Your task to perform on an android device: all mails in gmail Image 0: 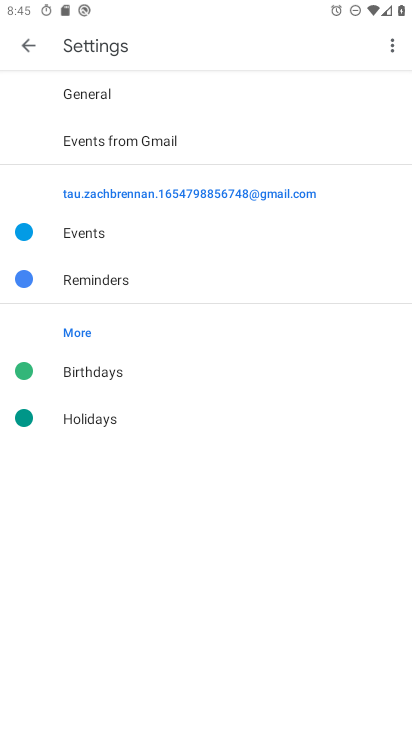
Step 0: press home button
Your task to perform on an android device: all mails in gmail Image 1: 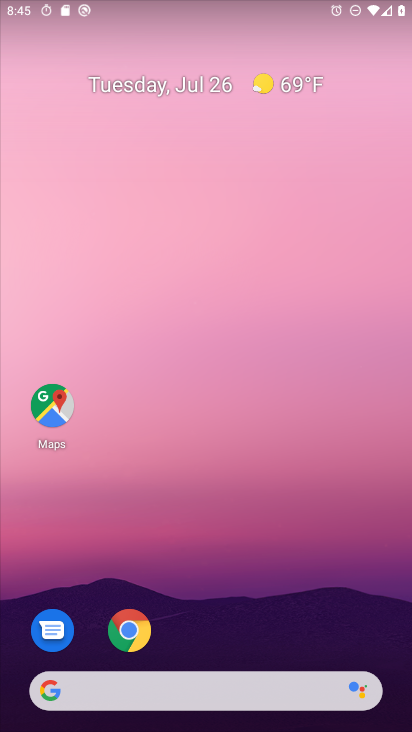
Step 1: drag from (249, 542) to (250, 105)
Your task to perform on an android device: all mails in gmail Image 2: 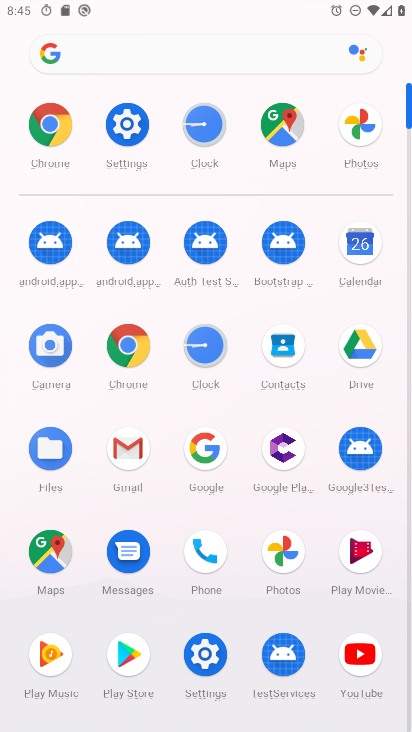
Step 2: click (123, 451)
Your task to perform on an android device: all mails in gmail Image 3: 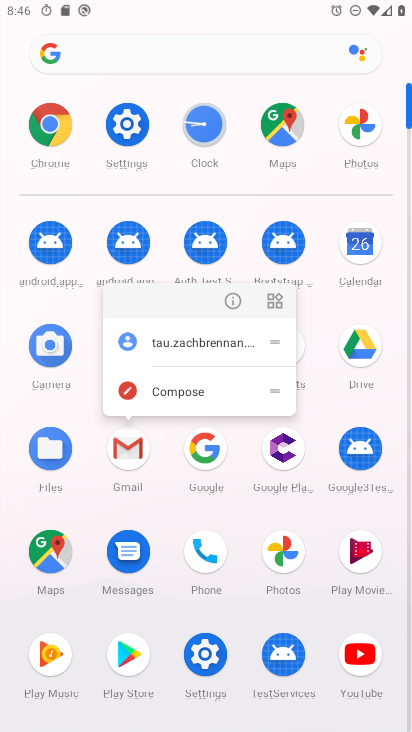
Step 3: click (138, 456)
Your task to perform on an android device: all mails in gmail Image 4: 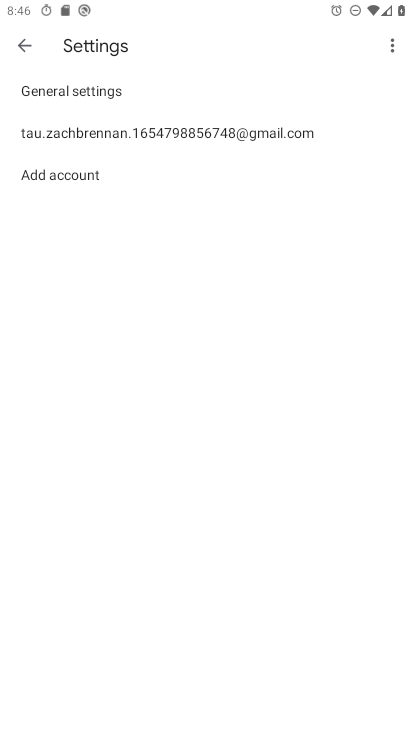
Step 4: press back button
Your task to perform on an android device: all mails in gmail Image 5: 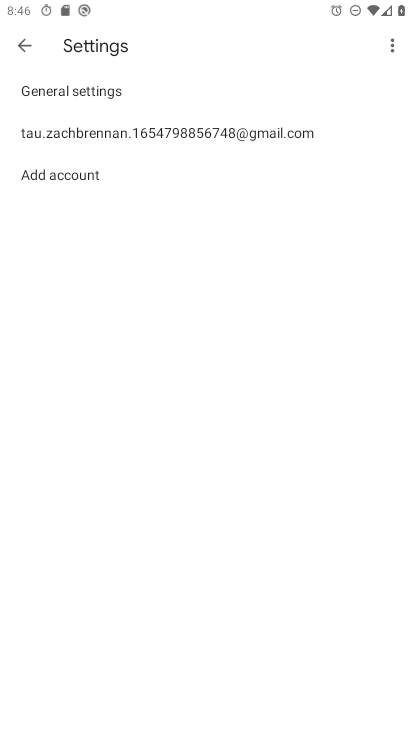
Step 5: press back button
Your task to perform on an android device: all mails in gmail Image 6: 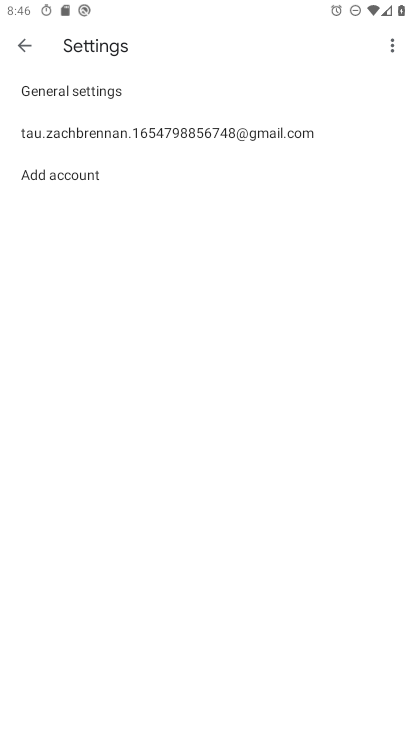
Step 6: press back button
Your task to perform on an android device: all mails in gmail Image 7: 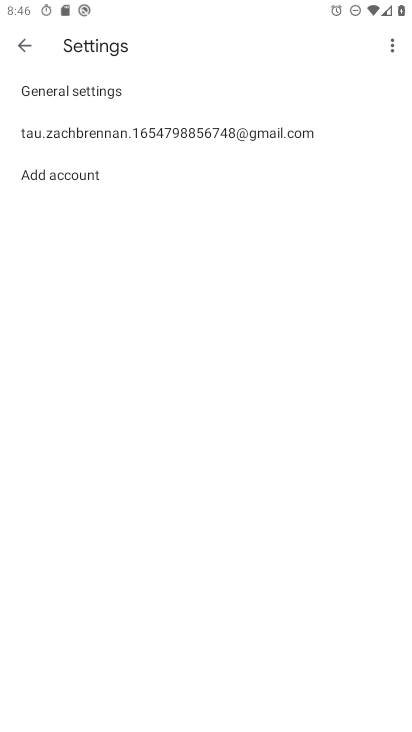
Step 7: click (22, 37)
Your task to perform on an android device: all mails in gmail Image 8: 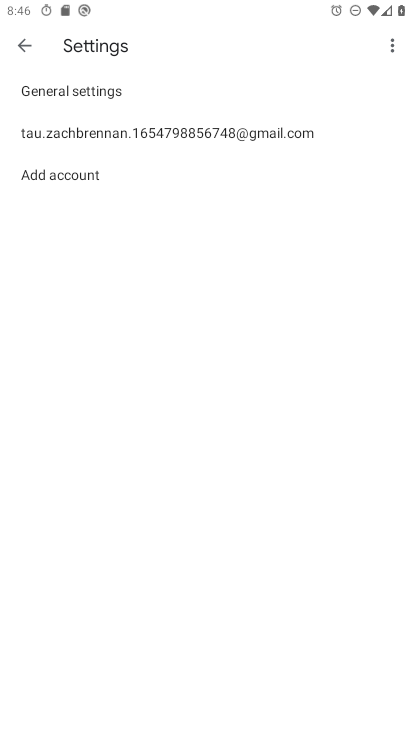
Step 8: click (26, 42)
Your task to perform on an android device: all mails in gmail Image 9: 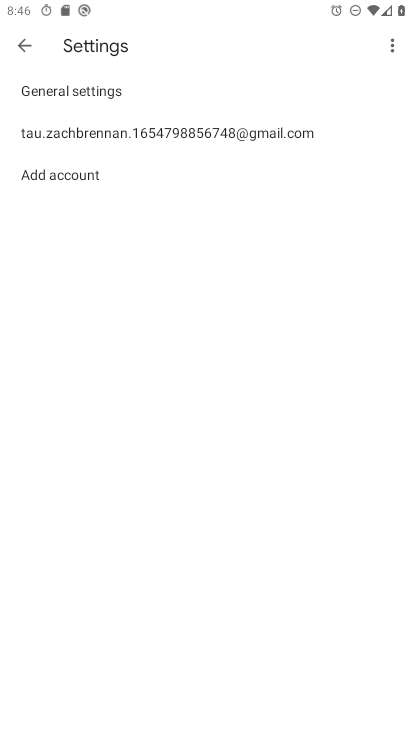
Step 9: press home button
Your task to perform on an android device: all mails in gmail Image 10: 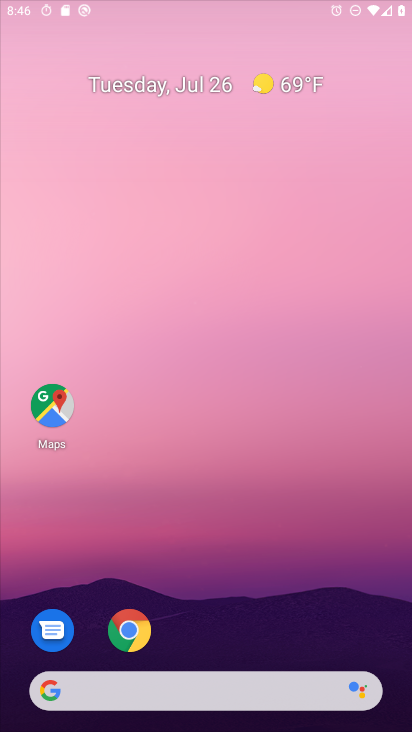
Step 10: drag from (241, 489) to (306, 68)
Your task to perform on an android device: all mails in gmail Image 11: 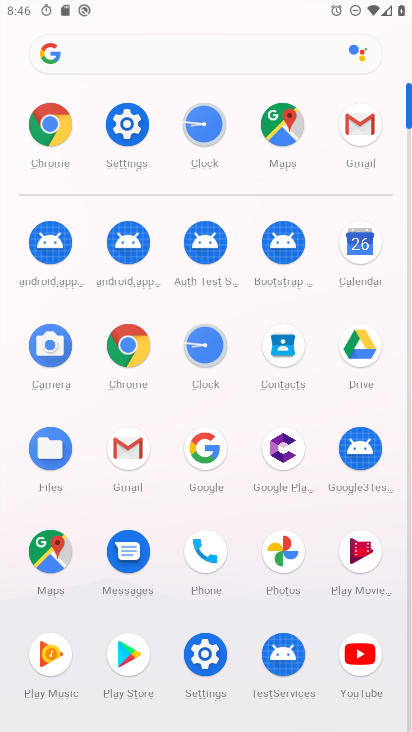
Step 11: click (125, 457)
Your task to perform on an android device: all mails in gmail Image 12: 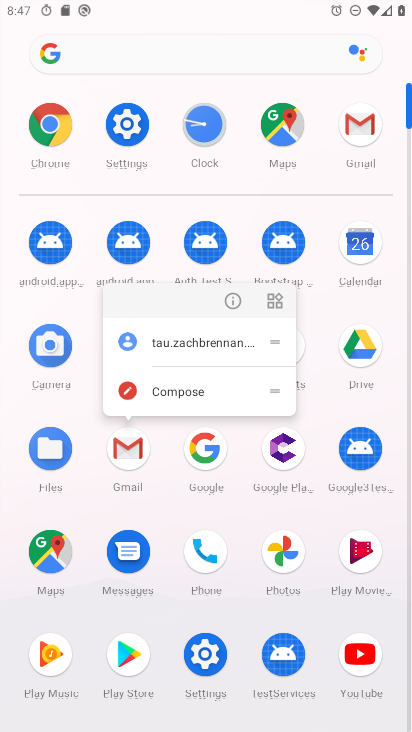
Step 12: click (129, 462)
Your task to perform on an android device: all mails in gmail Image 13: 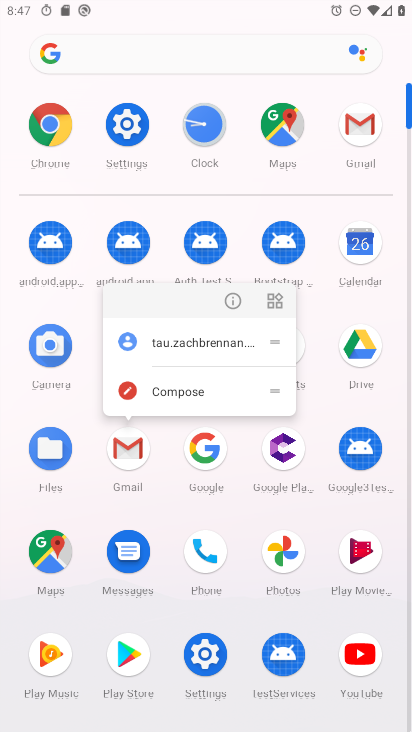
Step 13: click (132, 457)
Your task to perform on an android device: all mails in gmail Image 14: 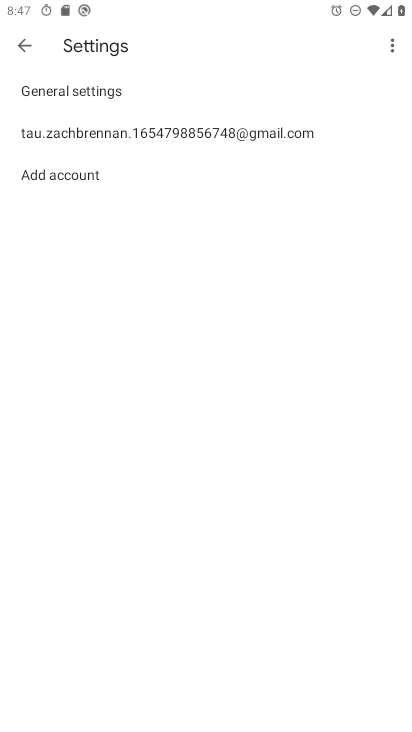
Step 14: press back button
Your task to perform on an android device: all mails in gmail Image 15: 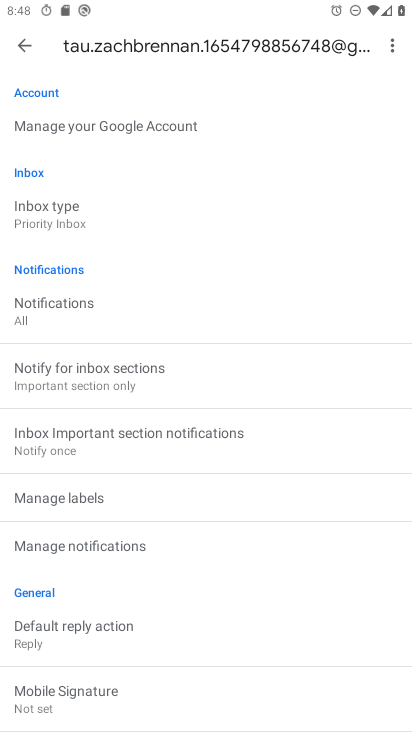
Step 15: press back button
Your task to perform on an android device: all mails in gmail Image 16: 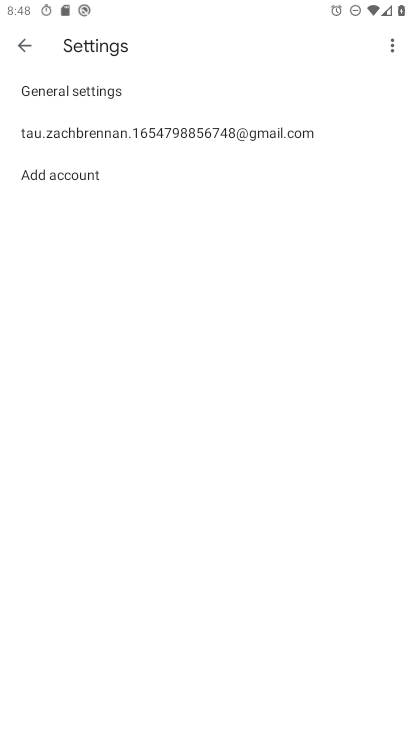
Step 16: press back button
Your task to perform on an android device: all mails in gmail Image 17: 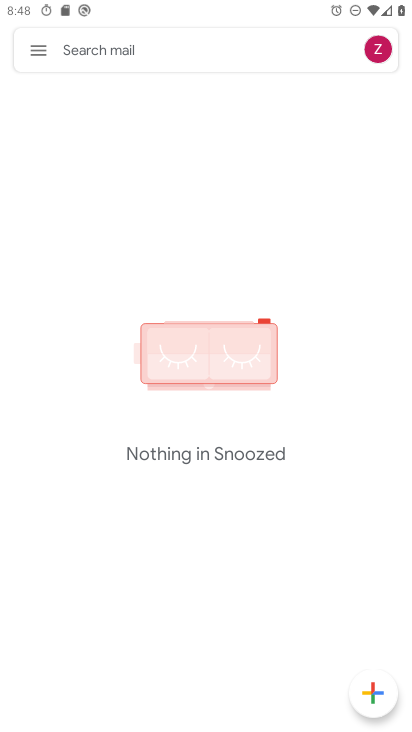
Step 17: click (29, 43)
Your task to perform on an android device: all mails in gmail Image 18: 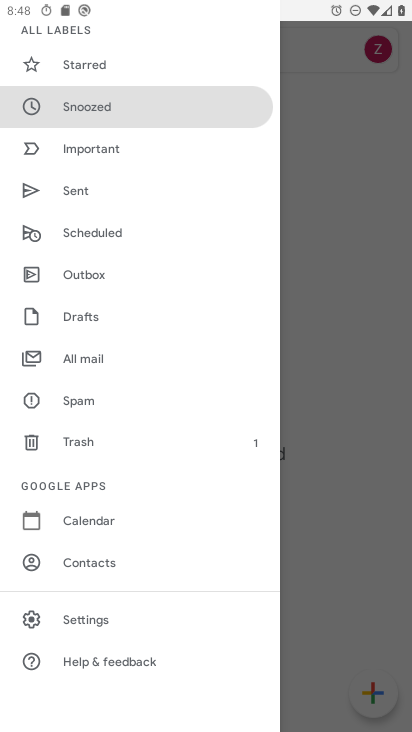
Step 18: click (117, 361)
Your task to perform on an android device: all mails in gmail Image 19: 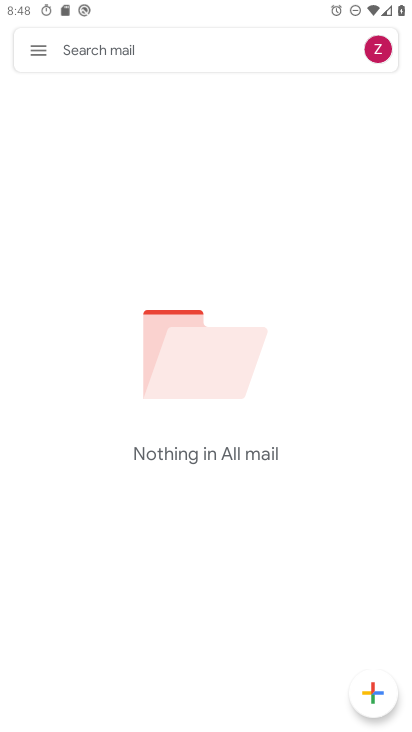
Step 19: task complete